Your task to perform on an android device: Open calendar and show me the first week of next month Image 0: 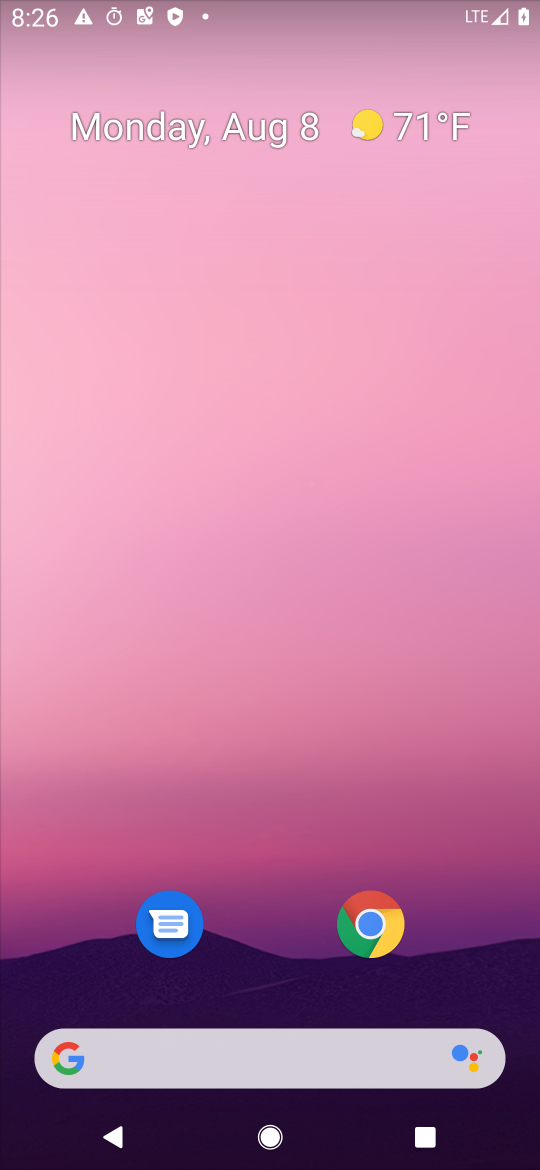
Step 0: drag from (226, 958) to (37, 0)
Your task to perform on an android device: Open calendar and show me the first week of next month Image 1: 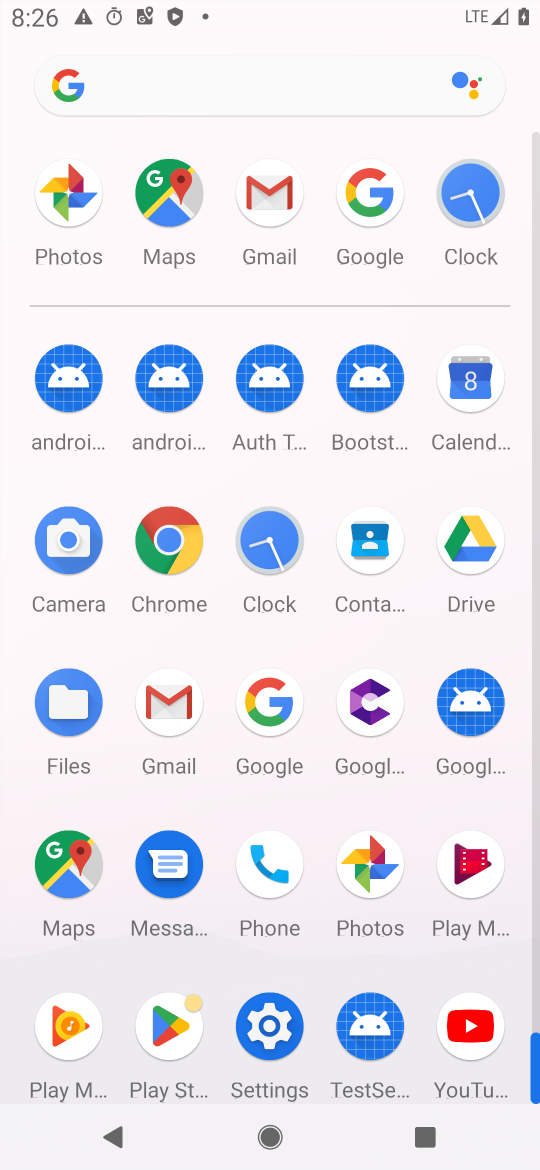
Step 1: drag from (291, 951) to (201, 137)
Your task to perform on an android device: Open calendar and show me the first week of next month Image 2: 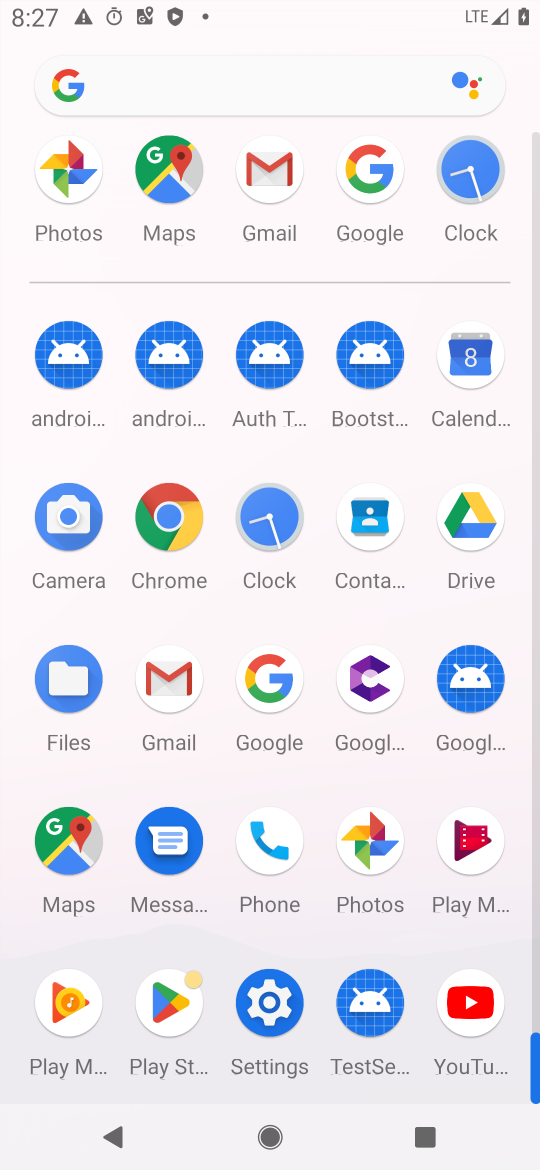
Step 2: click (467, 334)
Your task to perform on an android device: Open calendar and show me the first week of next month Image 3: 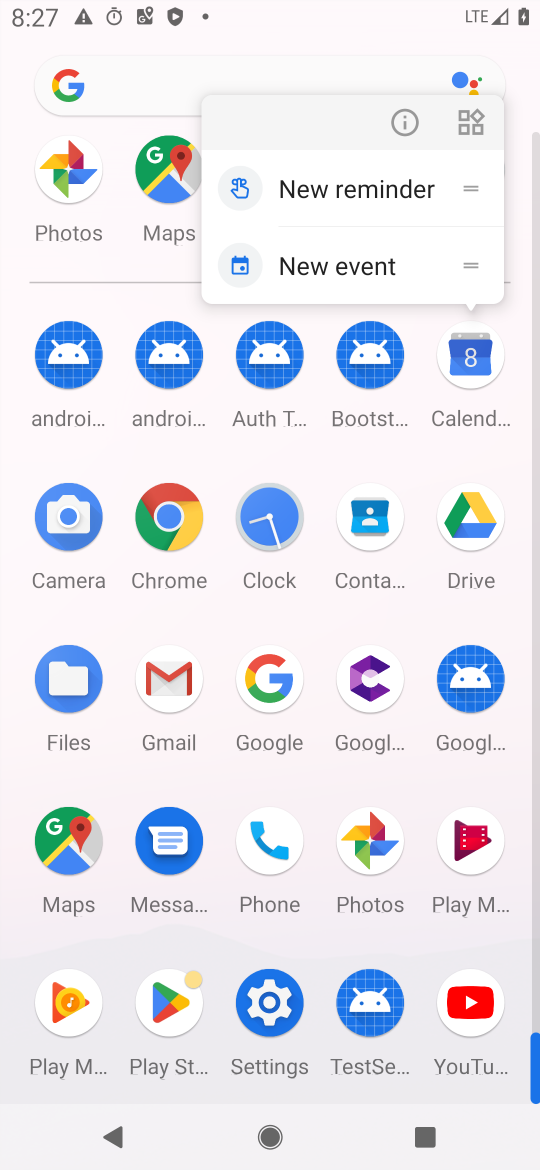
Step 3: click (394, 131)
Your task to perform on an android device: Open calendar and show me the first week of next month Image 4: 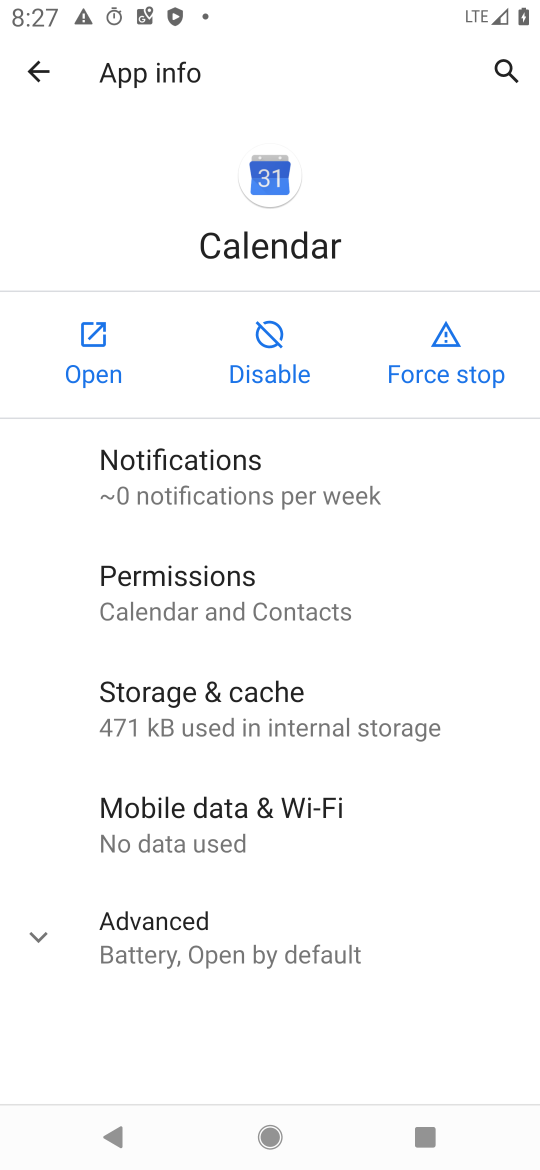
Step 4: click (99, 349)
Your task to perform on an android device: Open calendar and show me the first week of next month Image 5: 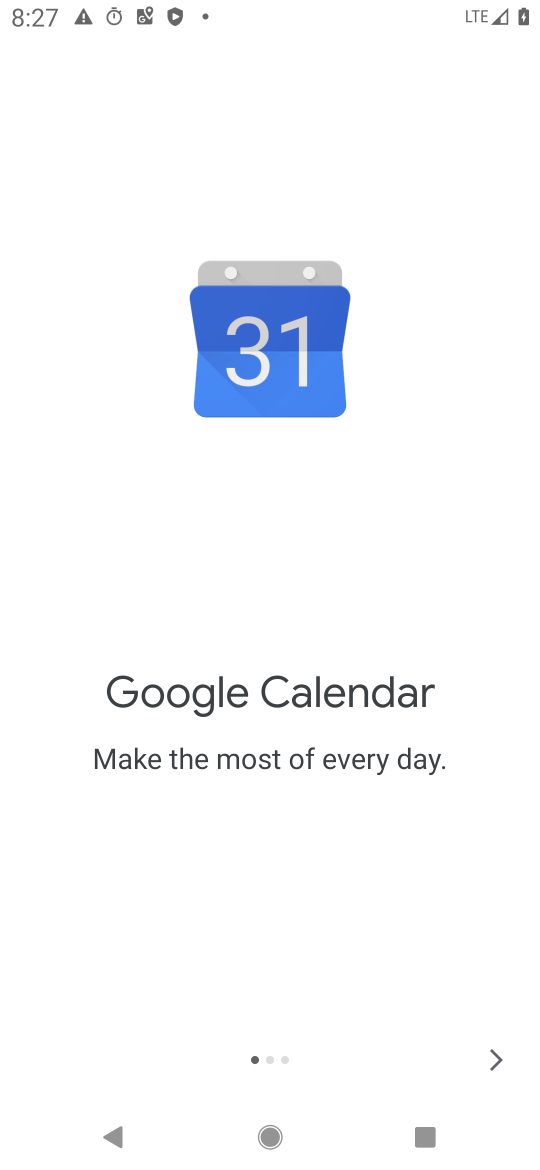
Step 5: click (486, 1055)
Your task to perform on an android device: Open calendar and show me the first week of next month Image 6: 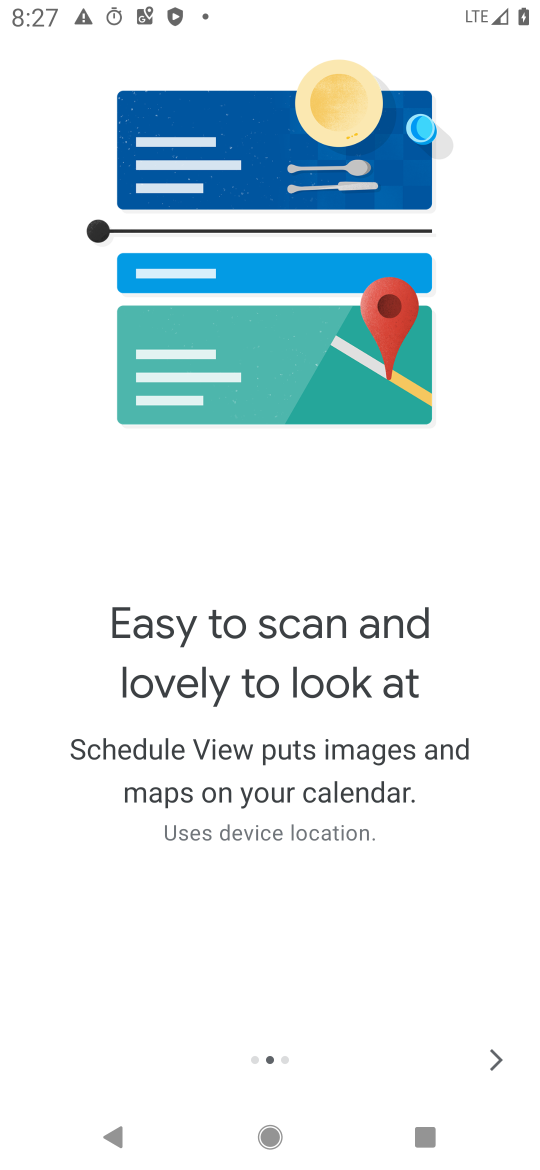
Step 6: click (485, 1056)
Your task to perform on an android device: Open calendar and show me the first week of next month Image 7: 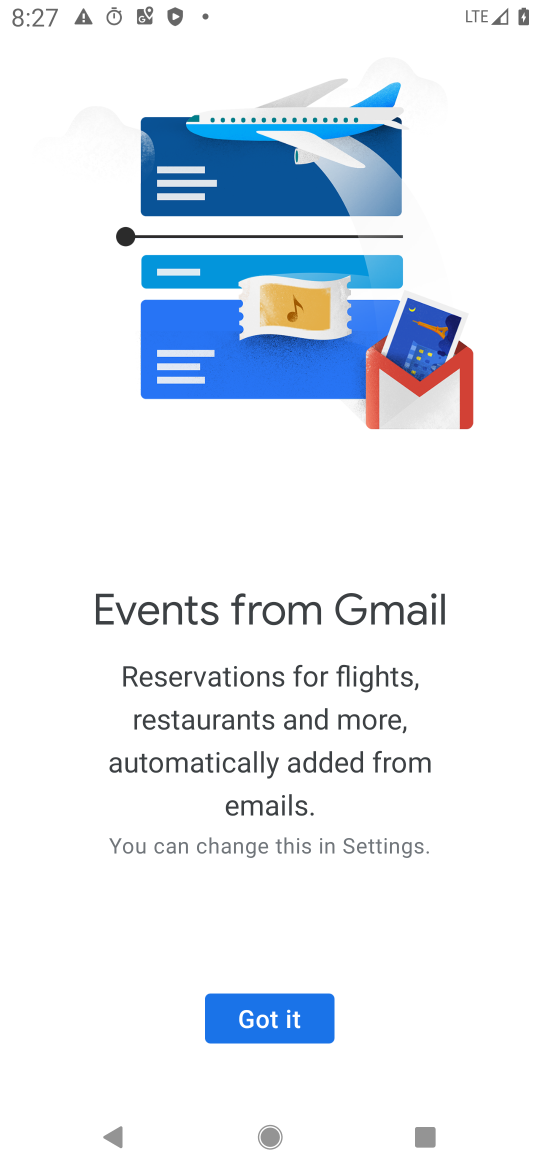
Step 7: click (493, 1054)
Your task to perform on an android device: Open calendar and show me the first week of next month Image 8: 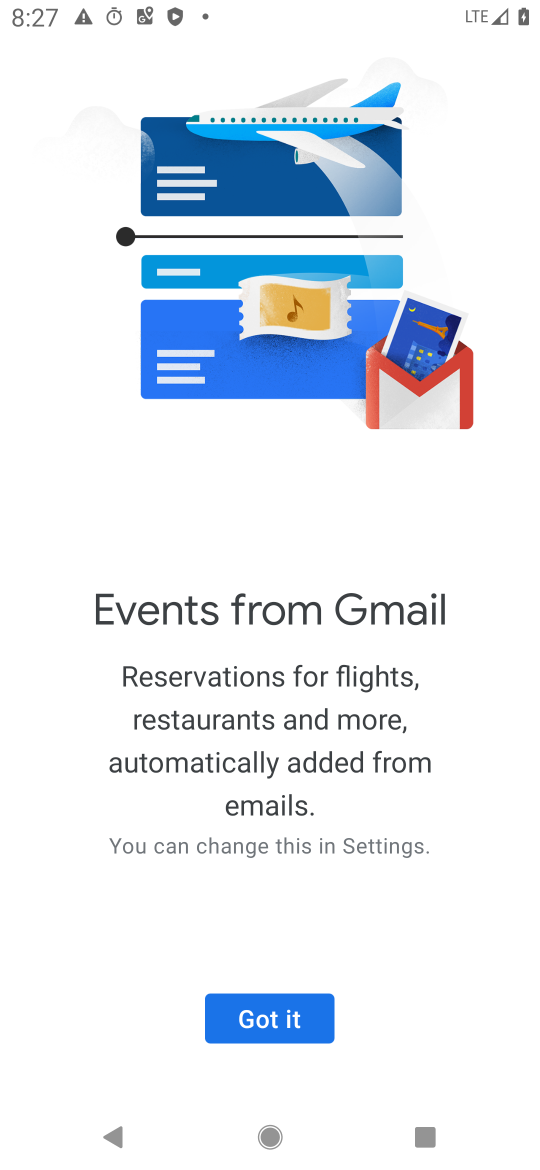
Step 8: click (289, 993)
Your task to perform on an android device: Open calendar and show me the first week of next month Image 9: 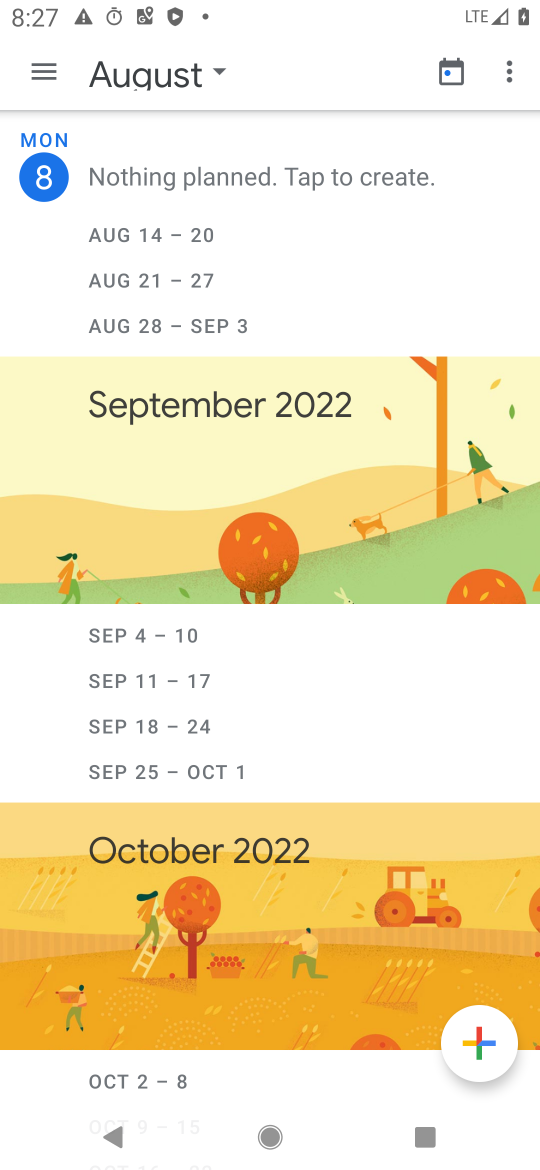
Step 9: click (190, 97)
Your task to perform on an android device: Open calendar and show me the first week of next month Image 10: 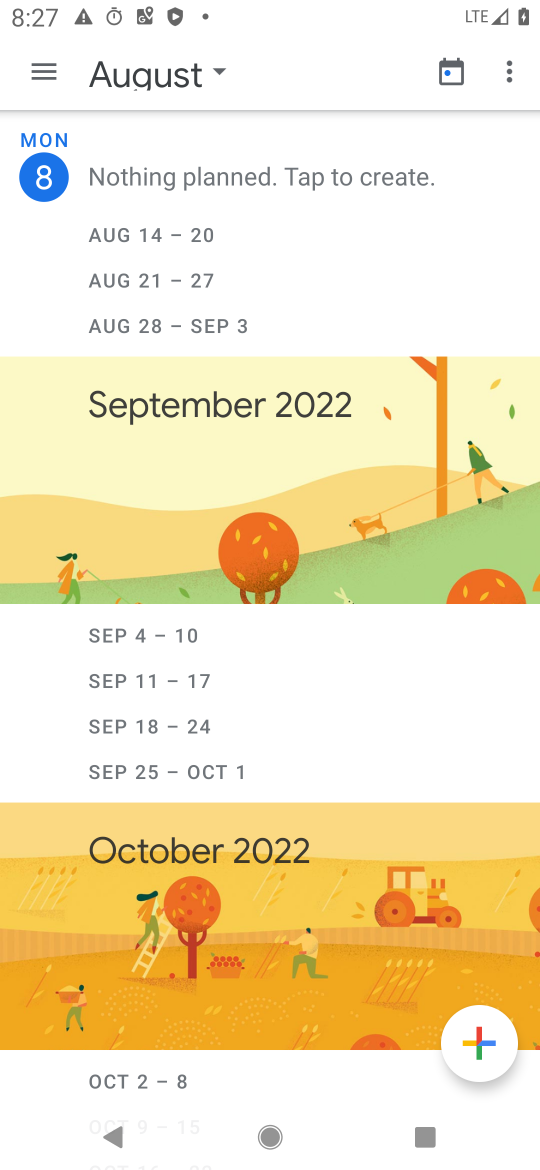
Step 10: click (118, 79)
Your task to perform on an android device: Open calendar and show me the first week of next month Image 11: 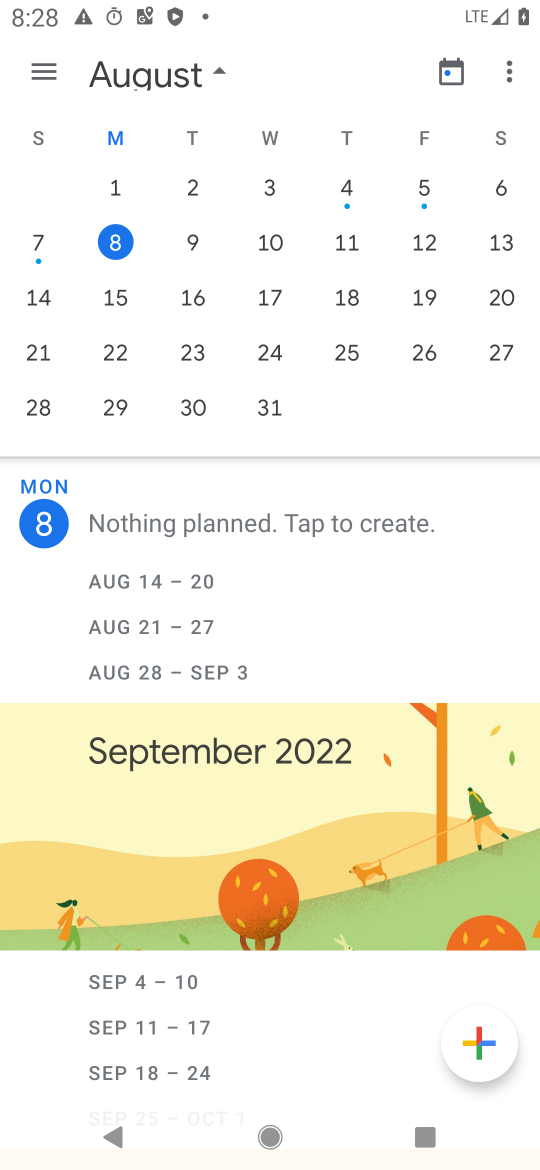
Step 11: drag from (473, 294) to (0, 476)
Your task to perform on an android device: Open calendar and show me the first week of next month Image 12: 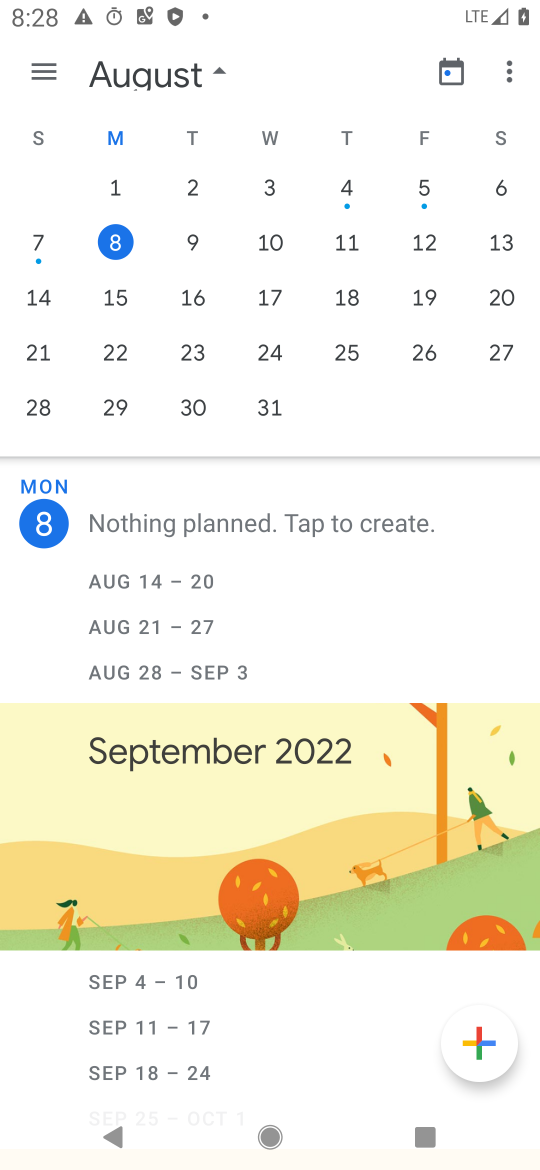
Step 12: drag from (497, 273) to (4, 300)
Your task to perform on an android device: Open calendar and show me the first week of next month Image 13: 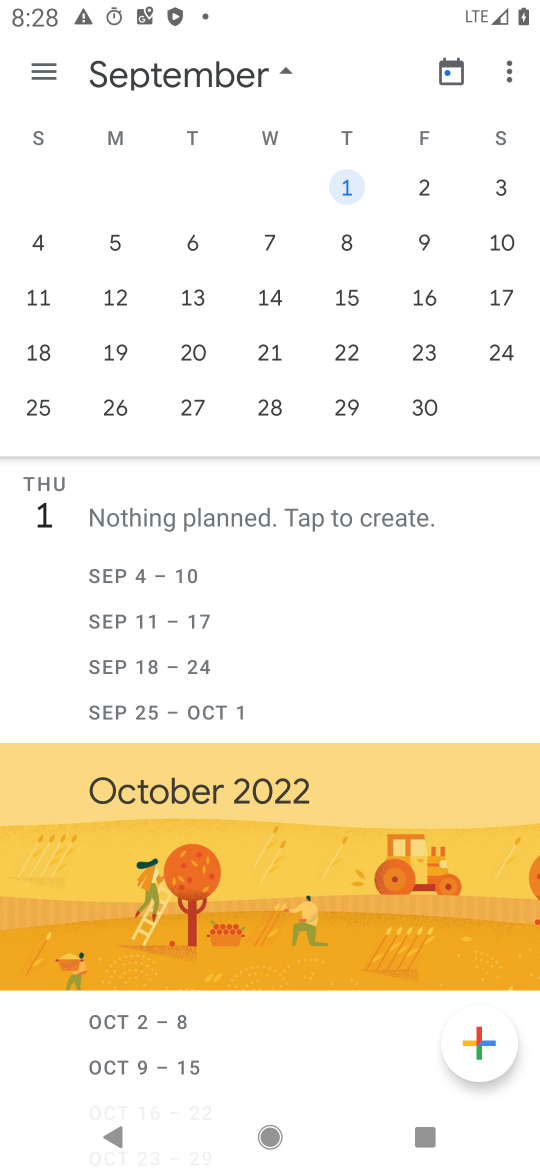
Step 13: click (427, 188)
Your task to perform on an android device: Open calendar and show me the first week of next month Image 14: 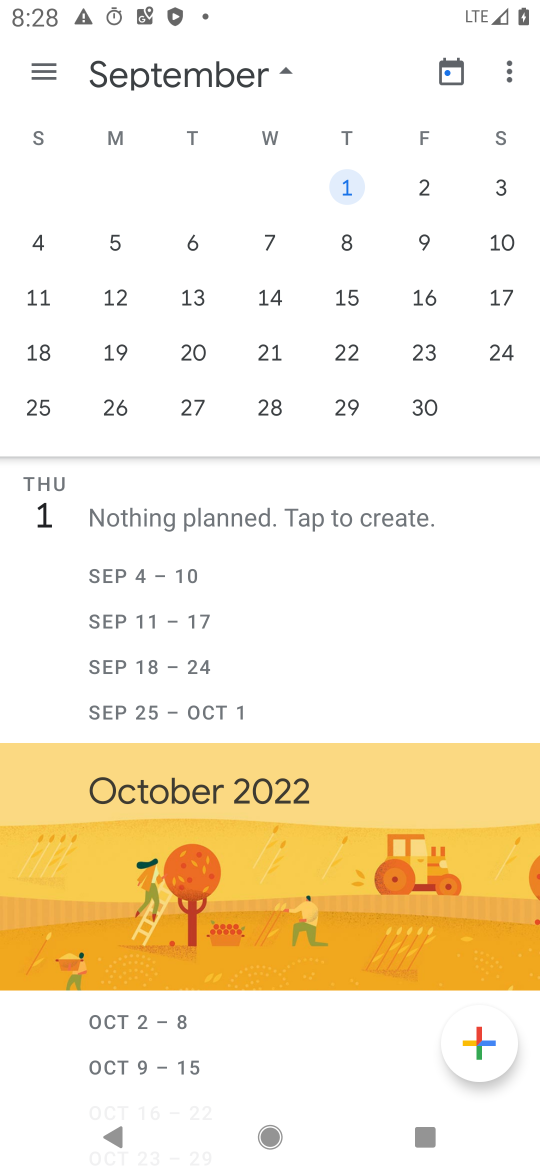
Step 14: click (426, 189)
Your task to perform on an android device: Open calendar and show me the first week of next month Image 15: 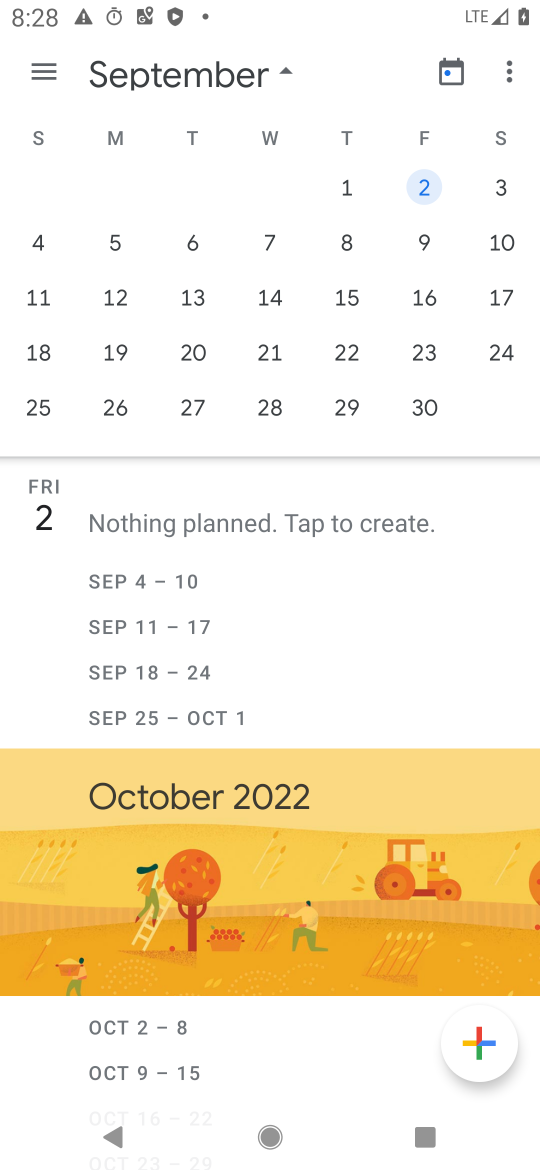
Step 15: task complete